Your task to perform on an android device: change timer sound Image 0: 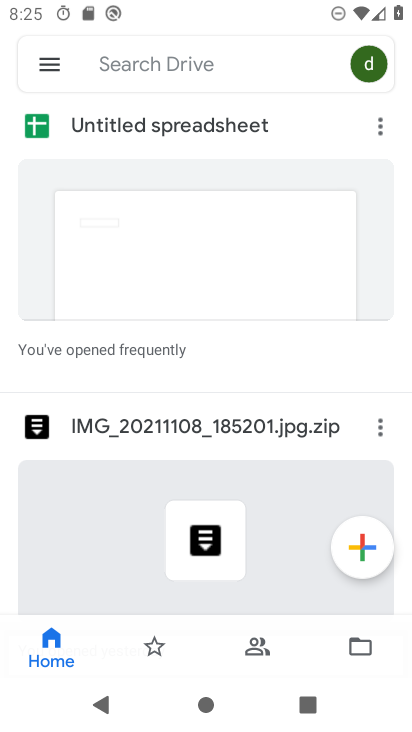
Step 0: press home button
Your task to perform on an android device: change timer sound Image 1: 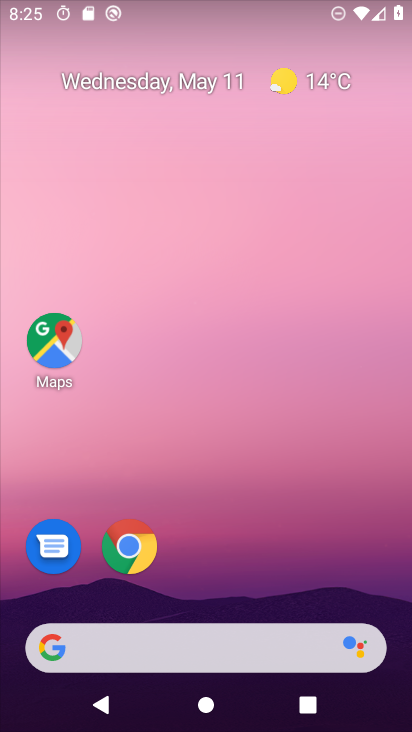
Step 1: drag from (211, 631) to (168, 61)
Your task to perform on an android device: change timer sound Image 2: 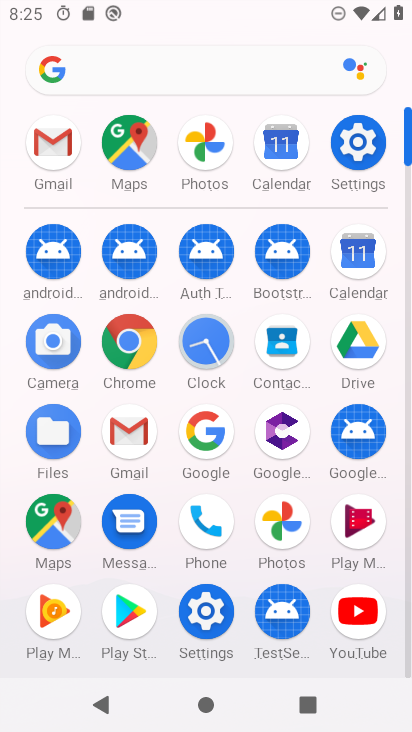
Step 2: click (197, 344)
Your task to perform on an android device: change timer sound Image 3: 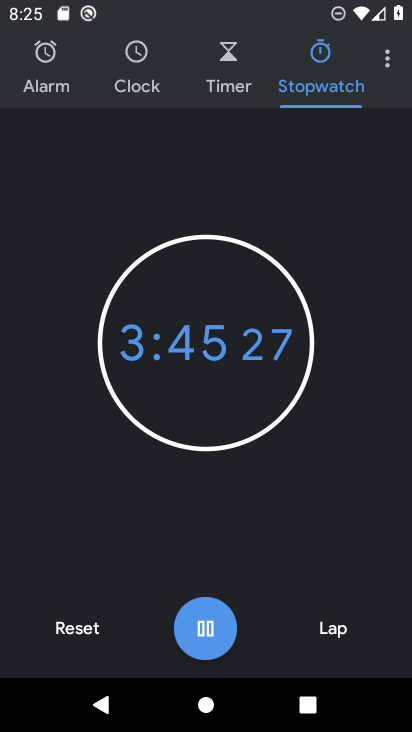
Step 3: click (377, 57)
Your task to perform on an android device: change timer sound Image 4: 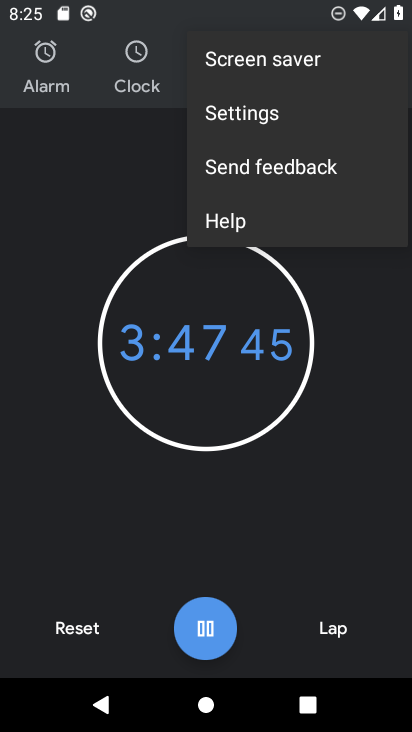
Step 4: click (232, 118)
Your task to perform on an android device: change timer sound Image 5: 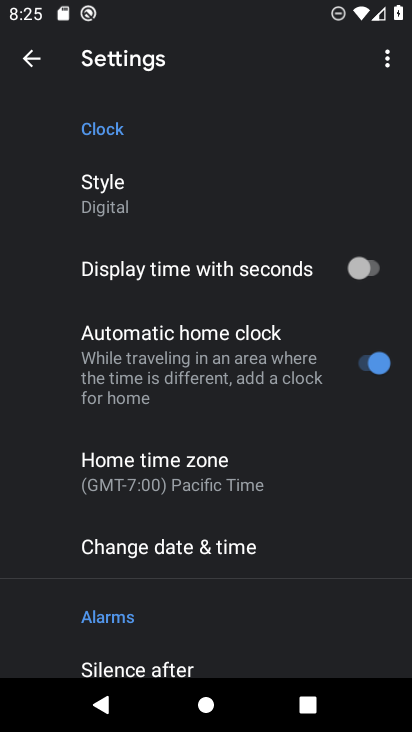
Step 5: drag from (237, 574) to (141, 21)
Your task to perform on an android device: change timer sound Image 6: 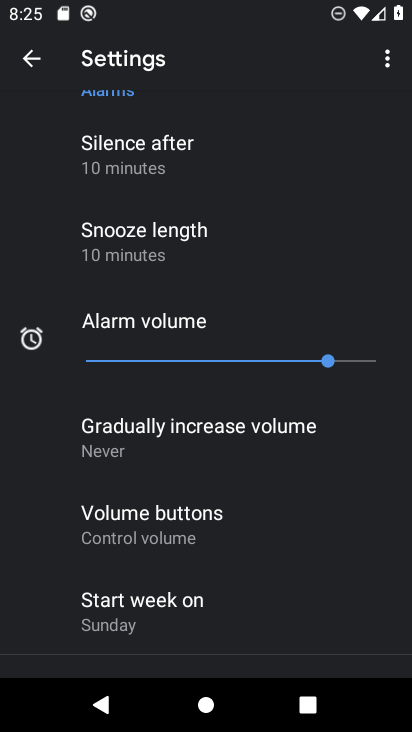
Step 6: drag from (237, 591) to (210, 53)
Your task to perform on an android device: change timer sound Image 7: 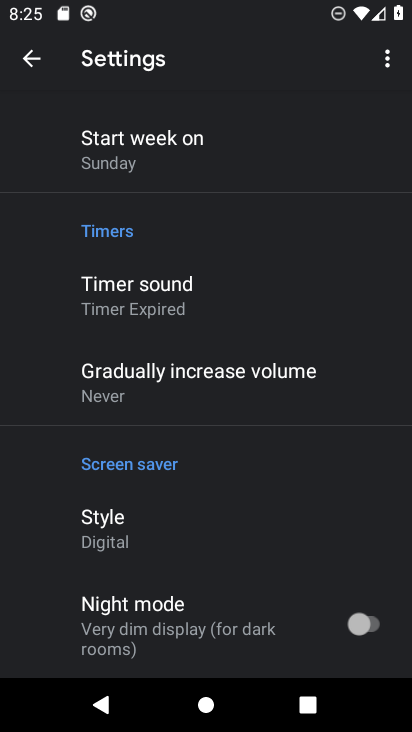
Step 7: click (145, 322)
Your task to perform on an android device: change timer sound Image 8: 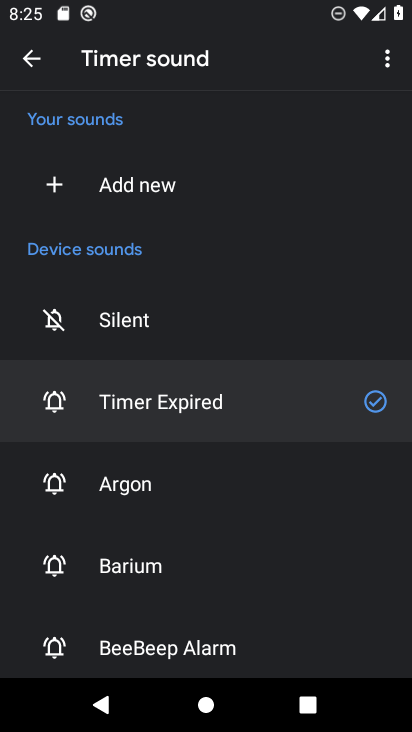
Step 8: click (162, 539)
Your task to perform on an android device: change timer sound Image 9: 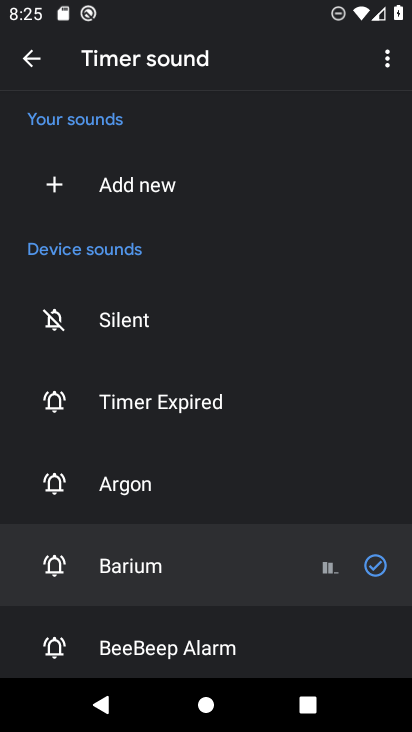
Step 9: task complete